Your task to perform on an android device: toggle priority inbox in the gmail app Image 0: 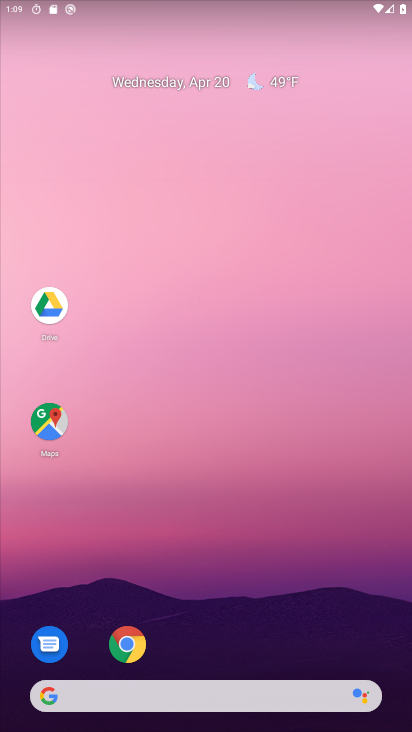
Step 0: drag from (224, 506) to (233, 124)
Your task to perform on an android device: toggle priority inbox in the gmail app Image 1: 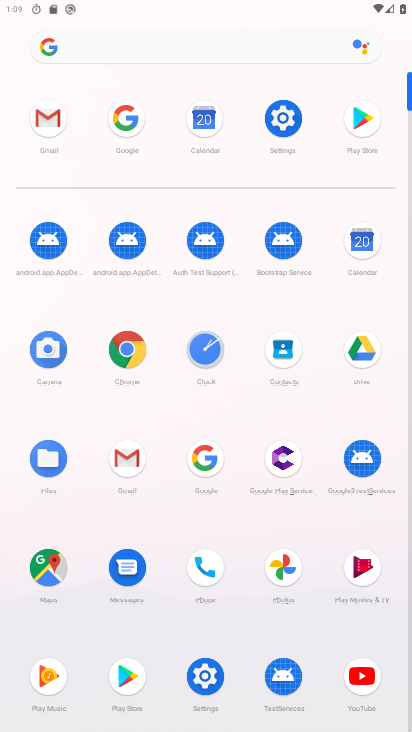
Step 1: click (122, 458)
Your task to perform on an android device: toggle priority inbox in the gmail app Image 2: 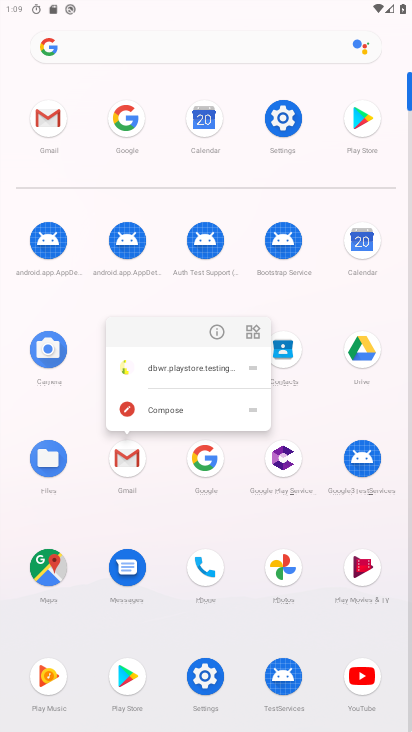
Step 2: click (135, 461)
Your task to perform on an android device: toggle priority inbox in the gmail app Image 3: 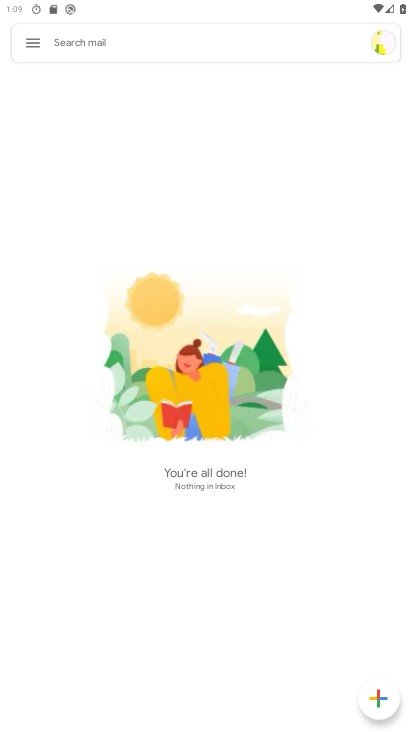
Step 3: click (29, 39)
Your task to perform on an android device: toggle priority inbox in the gmail app Image 4: 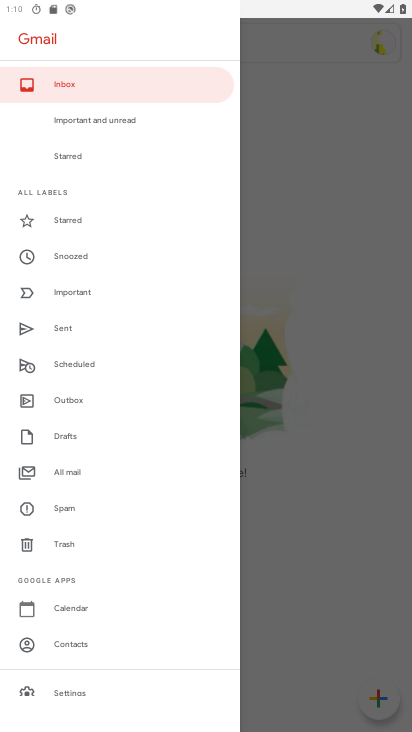
Step 4: click (69, 684)
Your task to perform on an android device: toggle priority inbox in the gmail app Image 5: 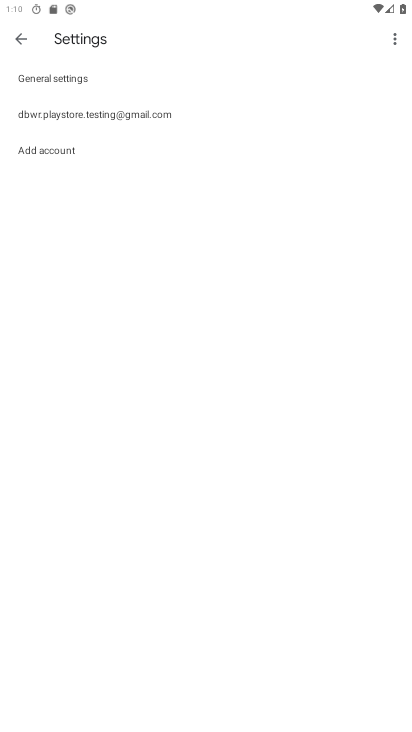
Step 5: click (108, 116)
Your task to perform on an android device: toggle priority inbox in the gmail app Image 6: 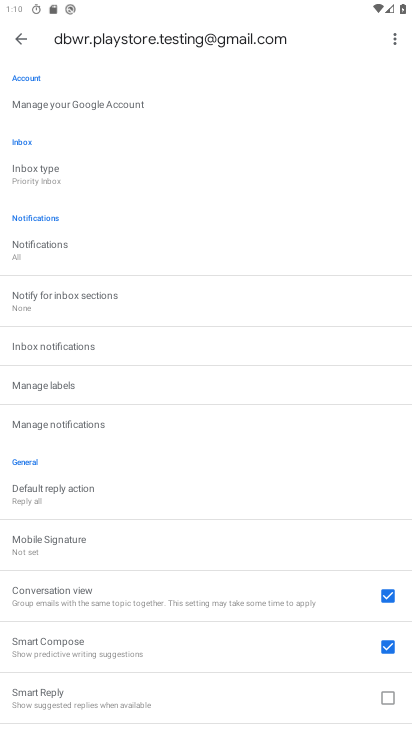
Step 6: click (59, 176)
Your task to perform on an android device: toggle priority inbox in the gmail app Image 7: 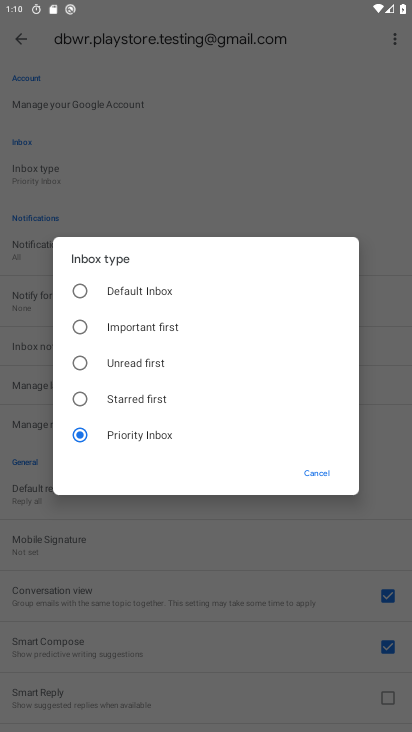
Step 7: click (114, 289)
Your task to perform on an android device: toggle priority inbox in the gmail app Image 8: 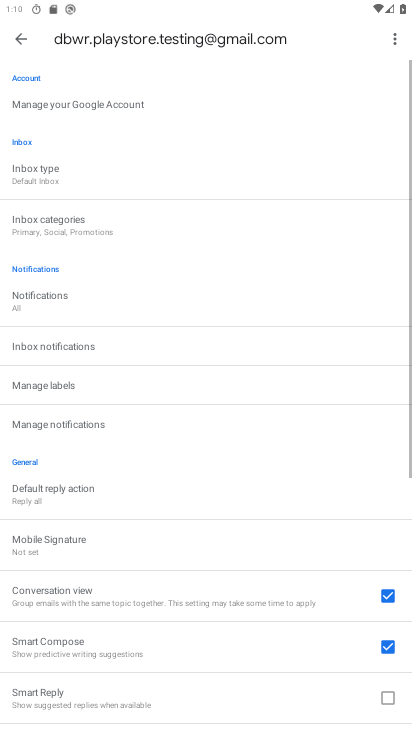
Step 8: task complete